Your task to perform on an android device: Go to settings Image 0: 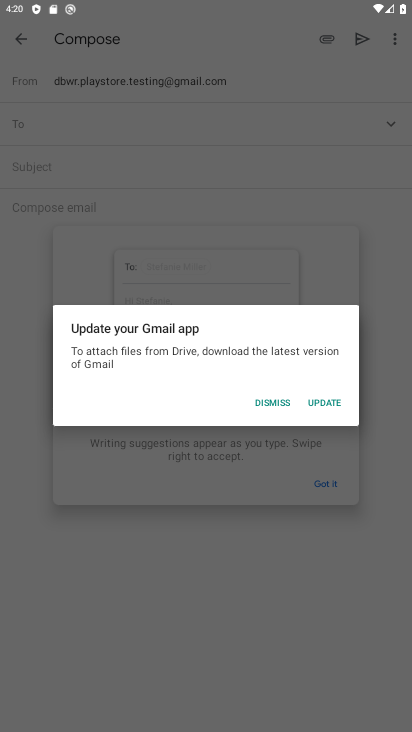
Step 0: press home button
Your task to perform on an android device: Go to settings Image 1: 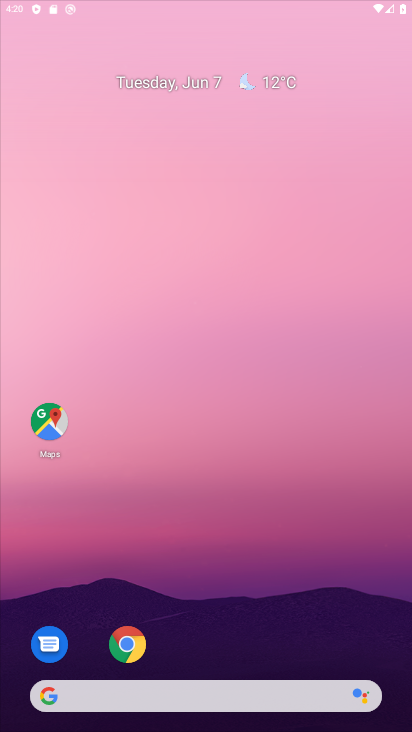
Step 1: press home button
Your task to perform on an android device: Go to settings Image 2: 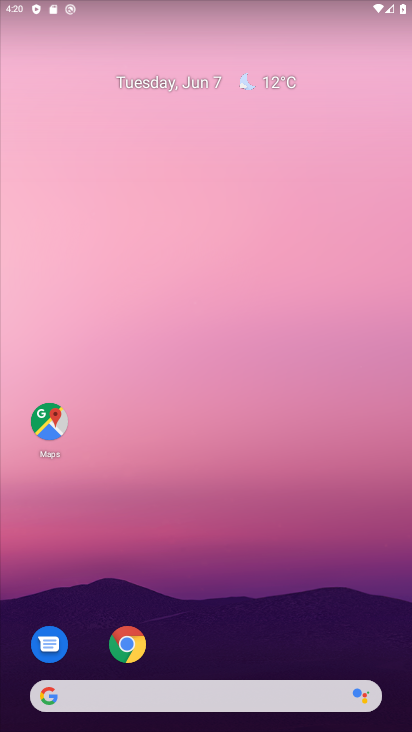
Step 2: drag from (197, 270) to (254, 72)
Your task to perform on an android device: Go to settings Image 3: 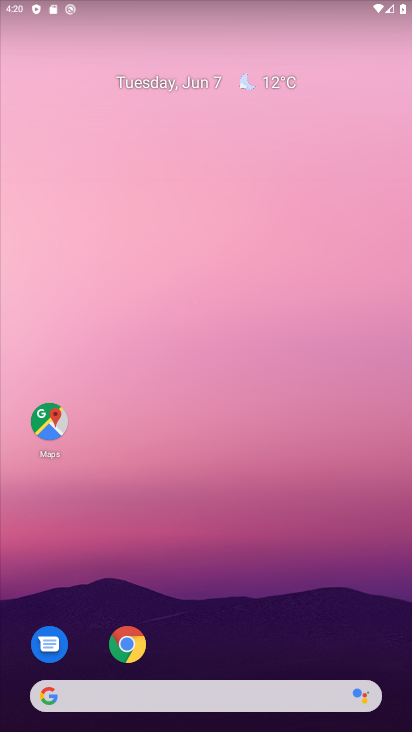
Step 3: drag from (263, 286) to (288, 6)
Your task to perform on an android device: Go to settings Image 4: 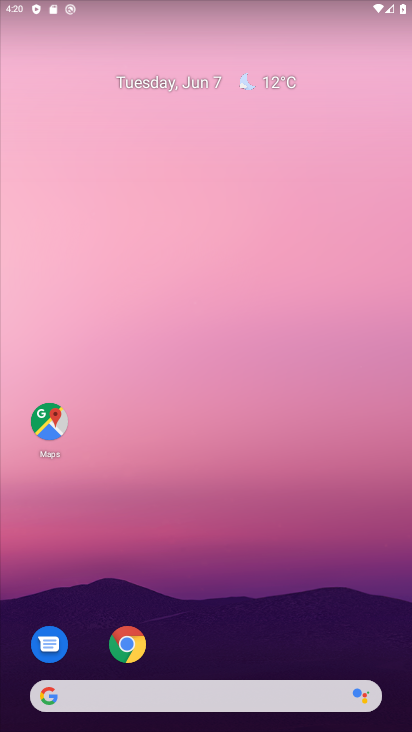
Step 4: drag from (256, 547) to (289, 1)
Your task to perform on an android device: Go to settings Image 5: 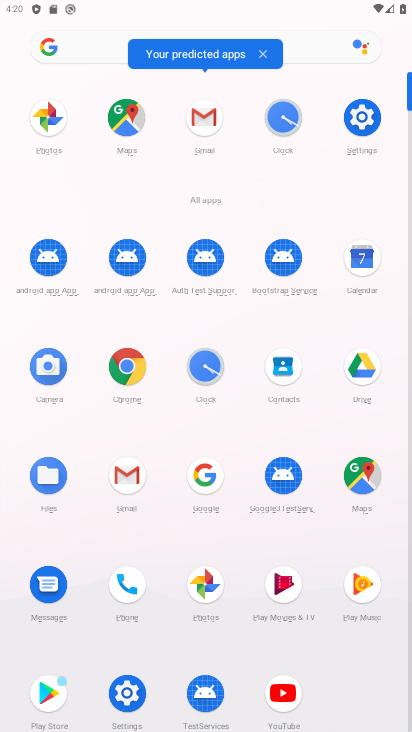
Step 5: click (362, 116)
Your task to perform on an android device: Go to settings Image 6: 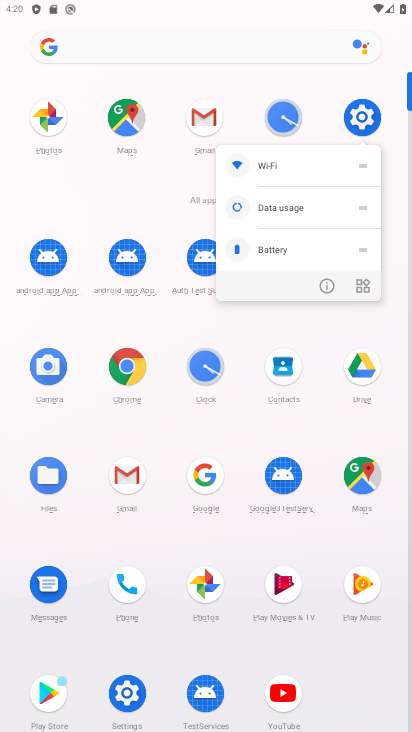
Step 6: click (359, 113)
Your task to perform on an android device: Go to settings Image 7: 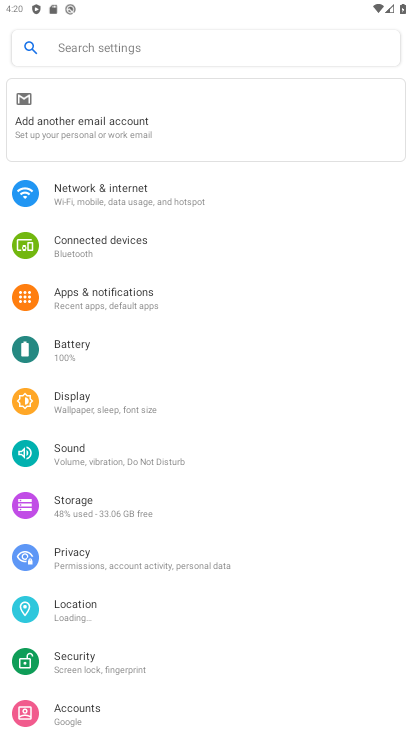
Step 7: task complete